Your task to perform on an android device: Show the shopping cart on target.com. Search for "jbl charge 4" on target.com, select the first entry, add it to the cart, then select checkout. Image 0: 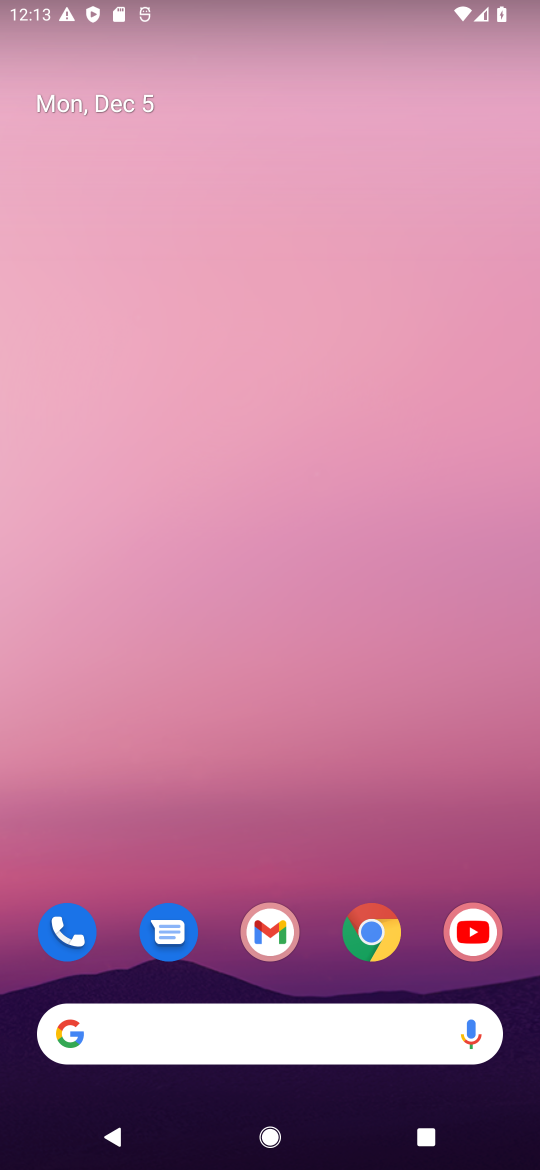
Step 0: click (364, 916)
Your task to perform on an android device: Show the shopping cart on target.com. Search for "jbl charge 4" on target.com, select the first entry, add it to the cart, then select checkout. Image 1: 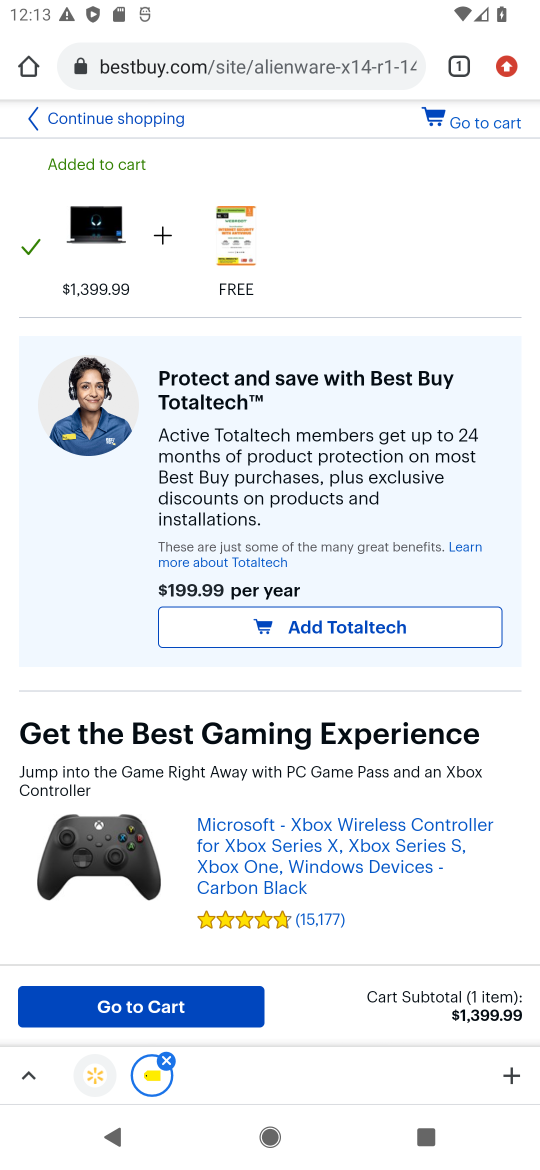
Step 1: click (268, 59)
Your task to perform on an android device: Show the shopping cart on target.com. Search for "jbl charge 4" on target.com, select the first entry, add it to the cart, then select checkout. Image 2: 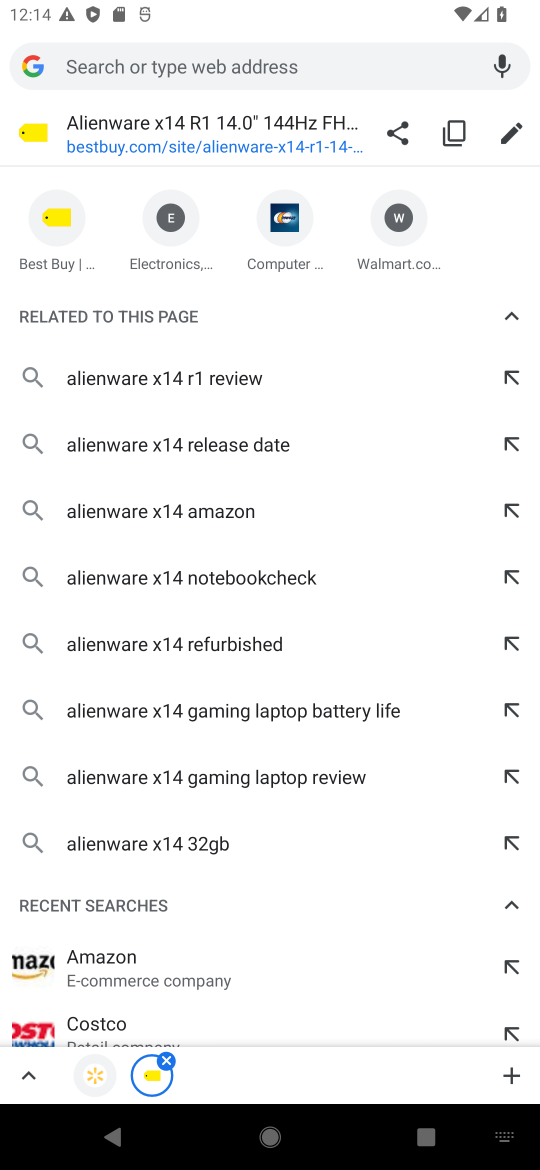
Step 2: type "target.com"
Your task to perform on an android device: Show the shopping cart on target.com. Search for "jbl charge 4" on target.com, select the first entry, add it to the cart, then select checkout. Image 3: 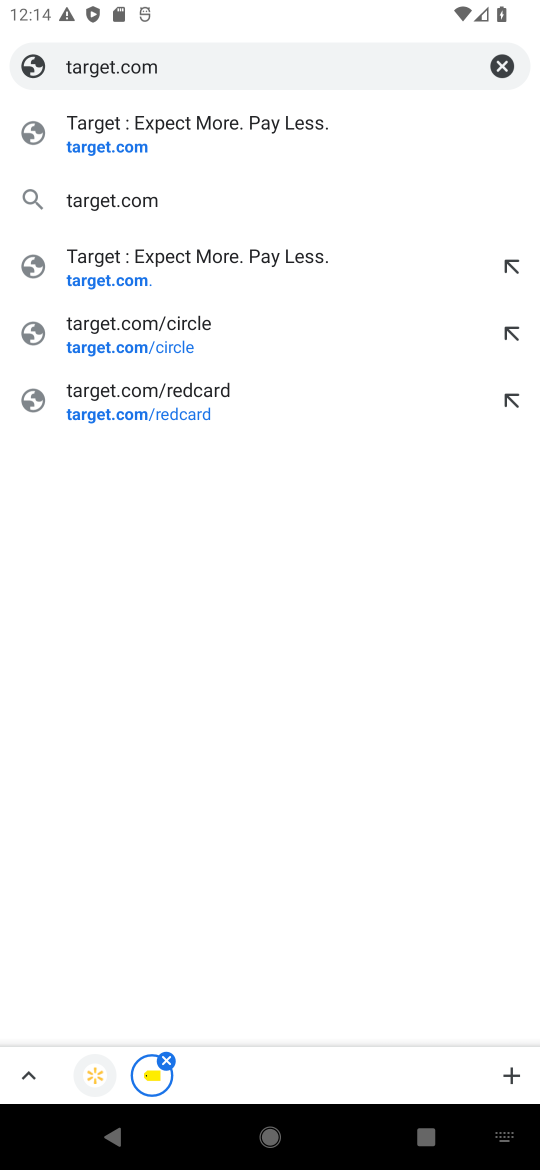
Step 3: click (165, 137)
Your task to perform on an android device: Show the shopping cart on target.com. Search for "jbl charge 4" on target.com, select the first entry, add it to the cart, then select checkout. Image 4: 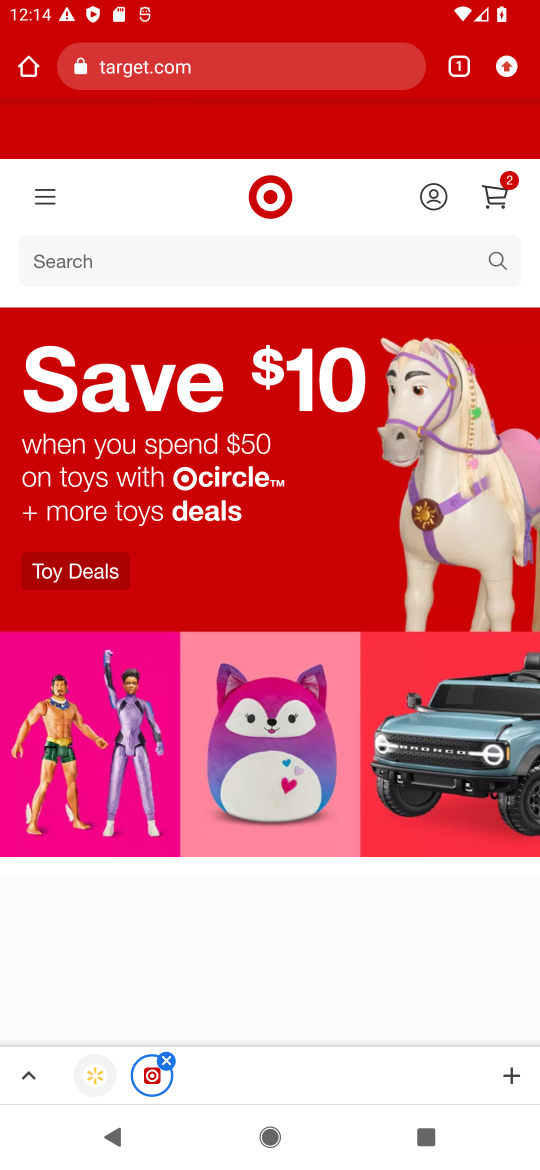
Step 4: click (300, 269)
Your task to perform on an android device: Show the shopping cart on target.com. Search for "jbl charge 4" on target.com, select the first entry, add it to the cart, then select checkout. Image 5: 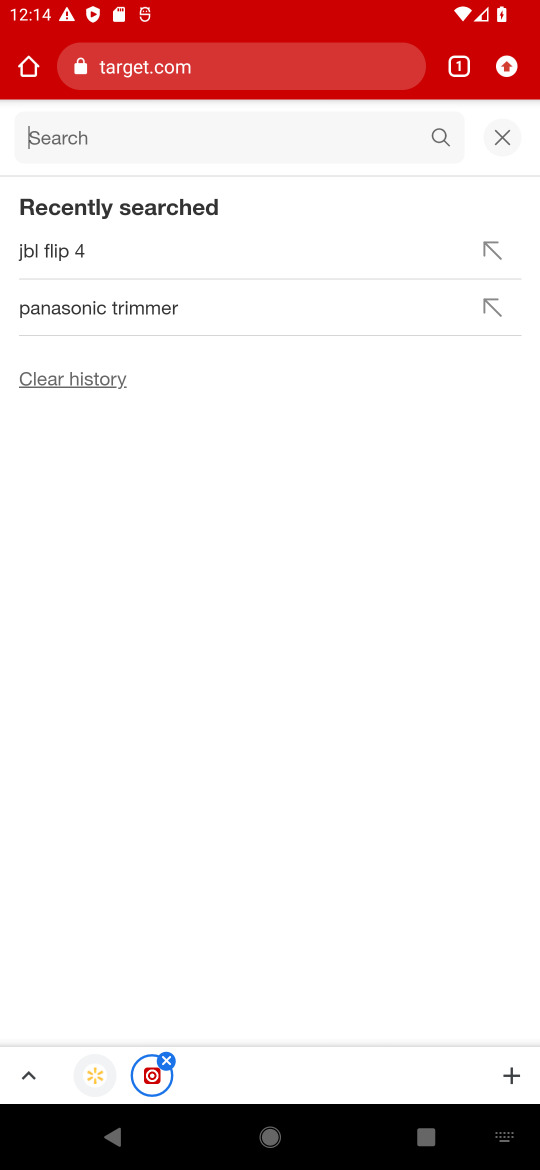
Step 5: type "jbl charge 4"
Your task to perform on an android device: Show the shopping cart on target.com. Search for "jbl charge 4" on target.com, select the first entry, add it to the cart, then select checkout. Image 6: 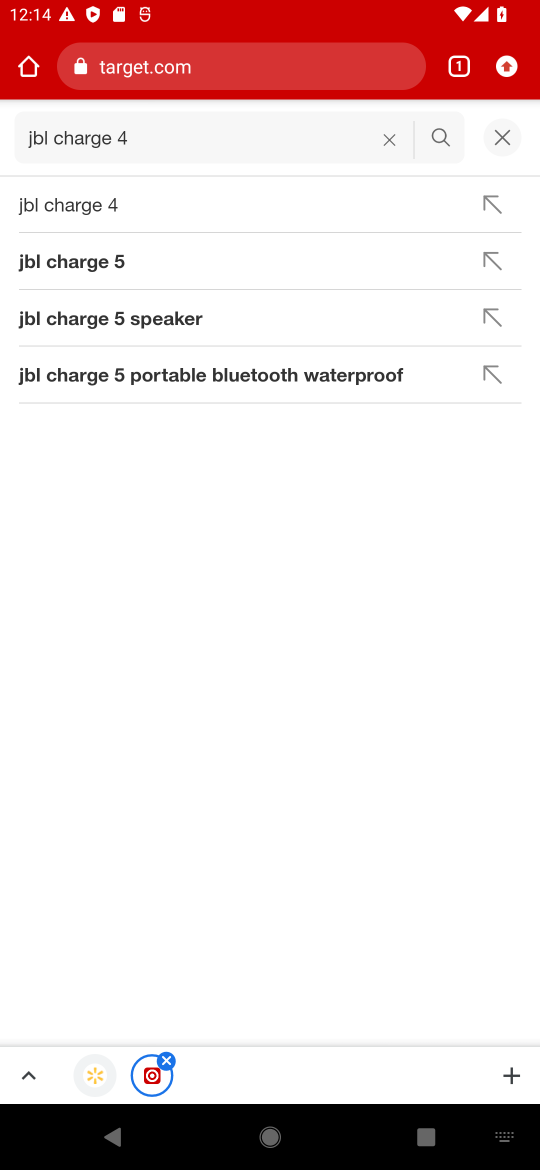
Step 6: click (74, 208)
Your task to perform on an android device: Show the shopping cart on target.com. Search for "jbl charge 4" on target.com, select the first entry, add it to the cart, then select checkout. Image 7: 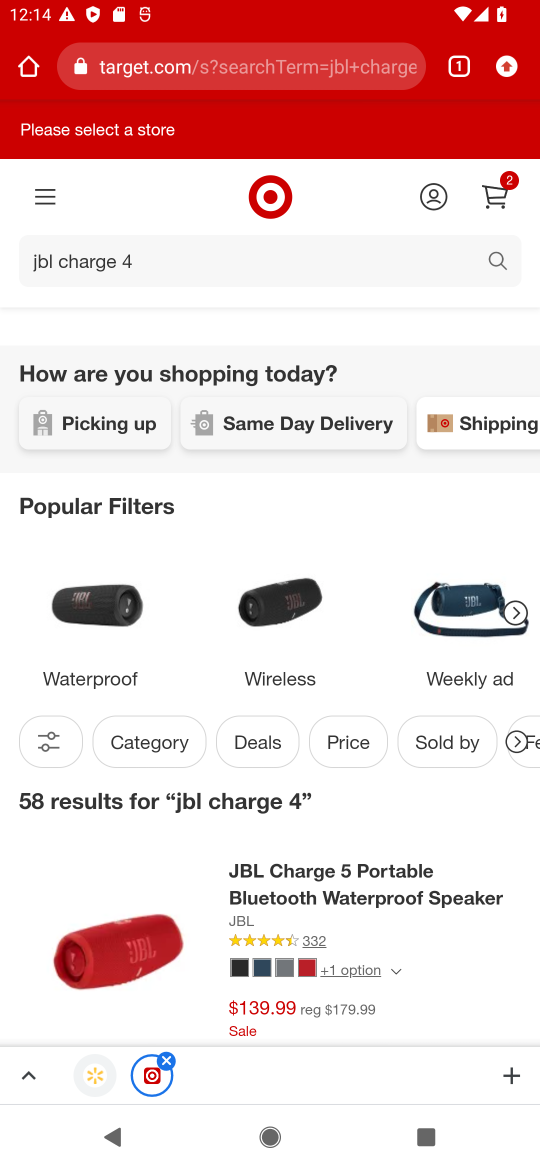
Step 7: click (116, 969)
Your task to perform on an android device: Show the shopping cart on target.com. Search for "jbl charge 4" on target.com, select the first entry, add it to the cart, then select checkout. Image 8: 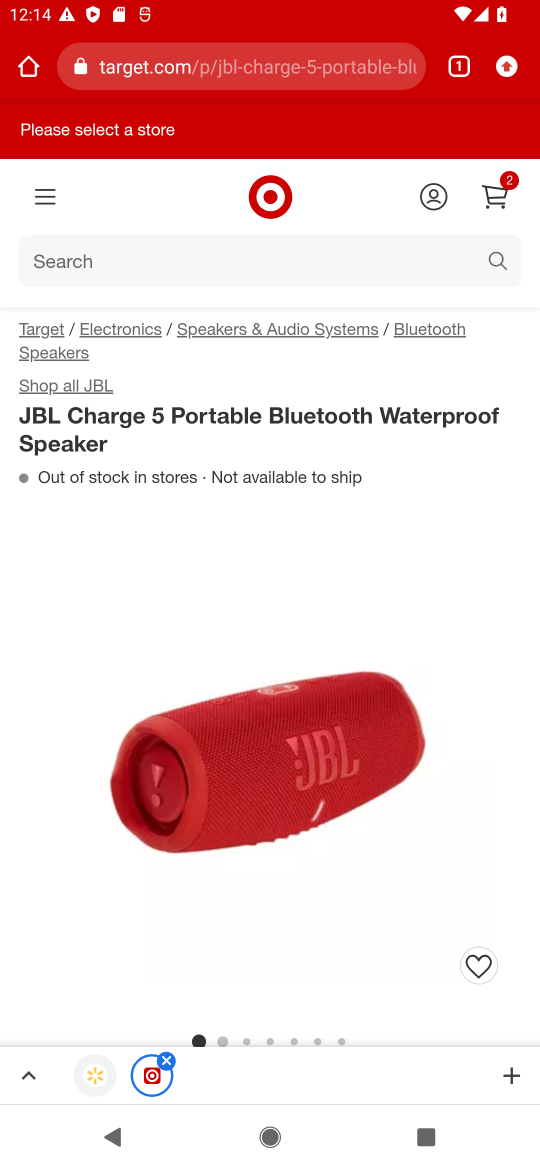
Step 8: drag from (378, 950) to (319, 347)
Your task to perform on an android device: Show the shopping cart on target.com. Search for "jbl charge 4" on target.com, select the first entry, add it to the cart, then select checkout. Image 9: 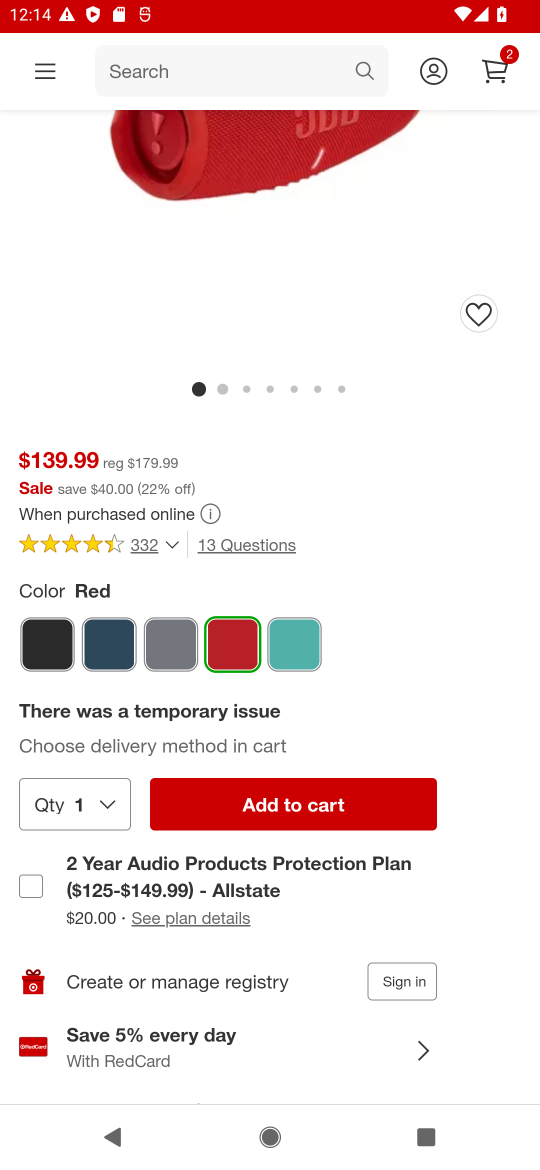
Step 9: click (298, 812)
Your task to perform on an android device: Show the shopping cart on target.com. Search for "jbl charge 4" on target.com, select the first entry, add it to the cart, then select checkout. Image 10: 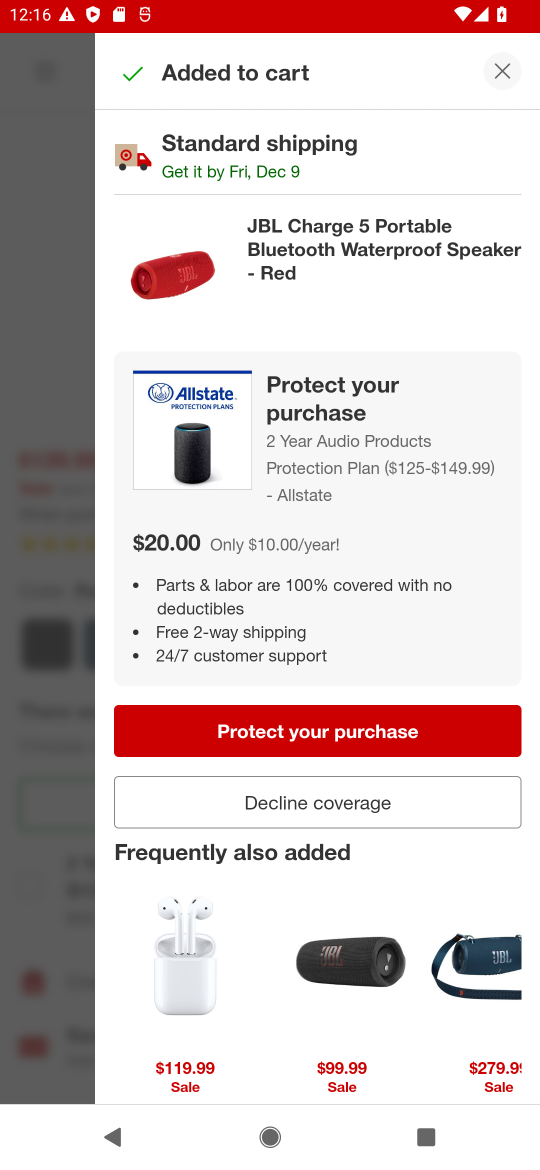
Step 10: click (325, 785)
Your task to perform on an android device: Show the shopping cart on target.com. Search for "jbl charge 4" on target.com, select the first entry, add it to the cart, then select checkout. Image 11: 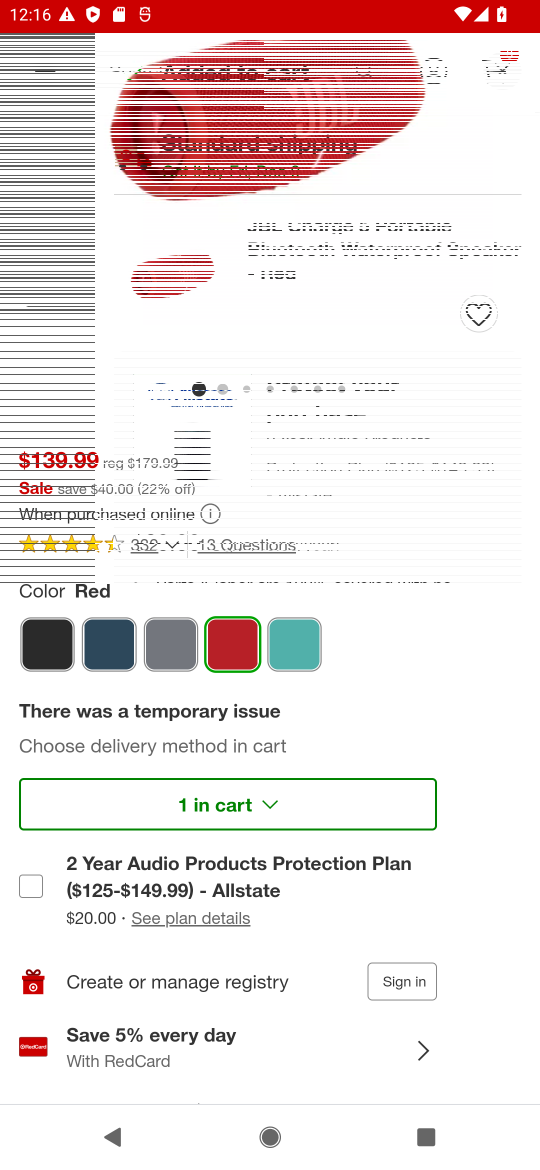
Step 11: click (325, 806)
Your task to perform on an android device: Show the shopping cart on target.com. Search for "jbl charge 4" on target.com, select the first entry, add it to the cart, then select checkout. Image 12: 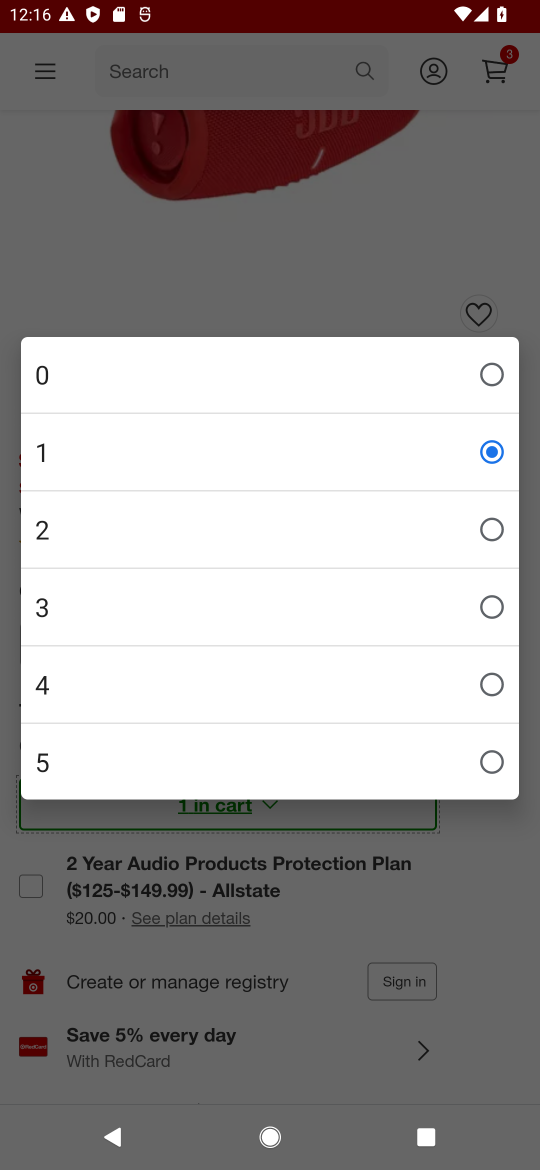
Step 12: click (204, 454)
Your task to perform on an android device: Show the shopping cart on target.com. Search for "jbl charge 4" on target.com, select the first entry, add it to the cart, then select checkout. Image 13: 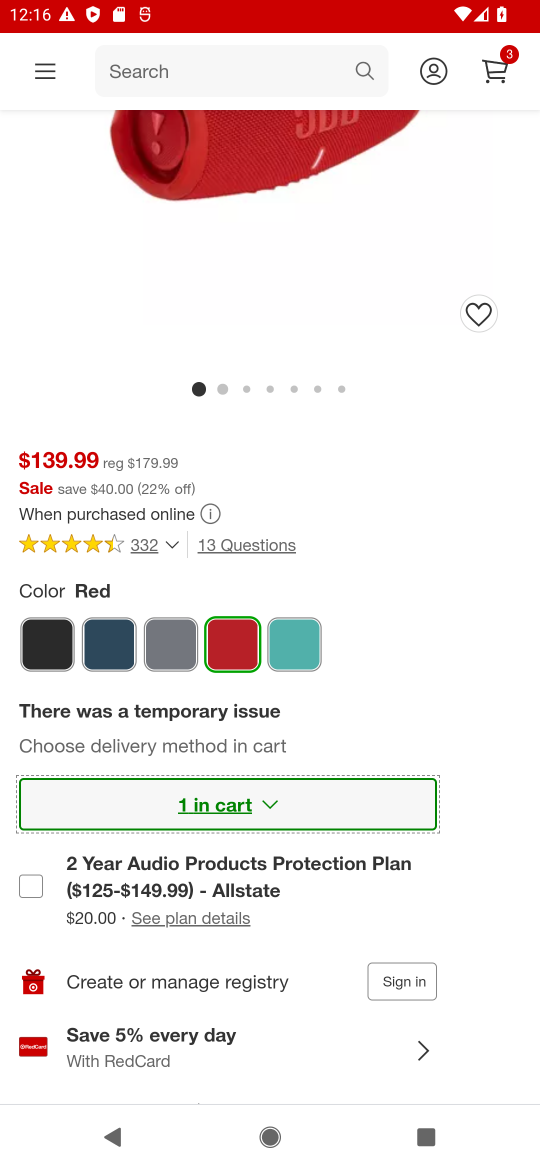
Step 13: click (503, 73)
Your task to perform on an android device: Show the shopping cart on target.com. Search for "jbl charge 4" on target.com, select the first entry, add it to the cart, then select checkout. Image 14: 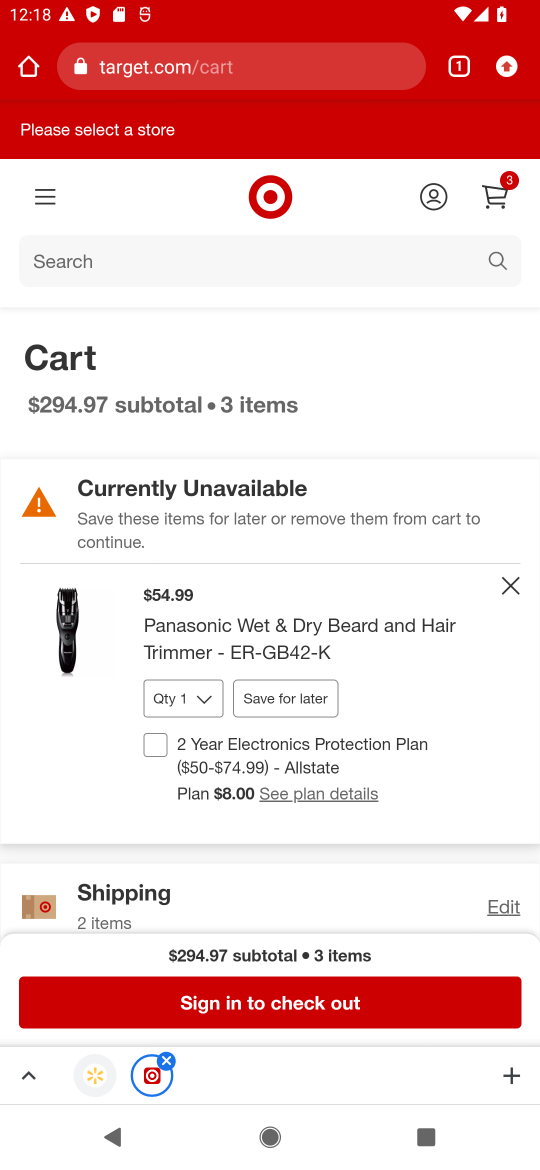
Step 14: task complete